Your task to perform on an android device: add a contact in the contacts app Image 0: 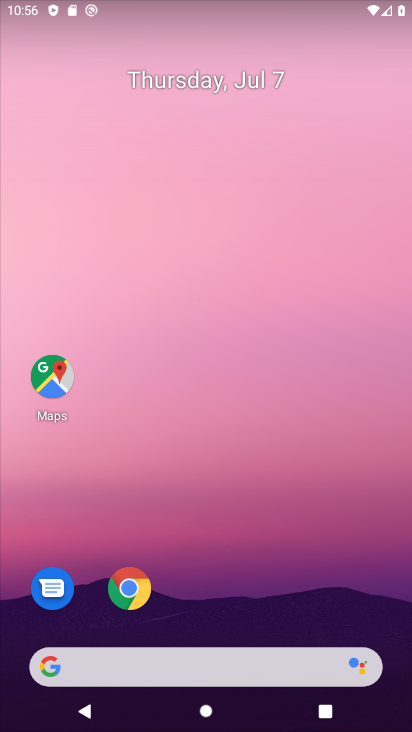
Step 0: drag from (133, 135) to (124, 97)
Your task to perform on an android device: add a contact in the contacts app Image 1: 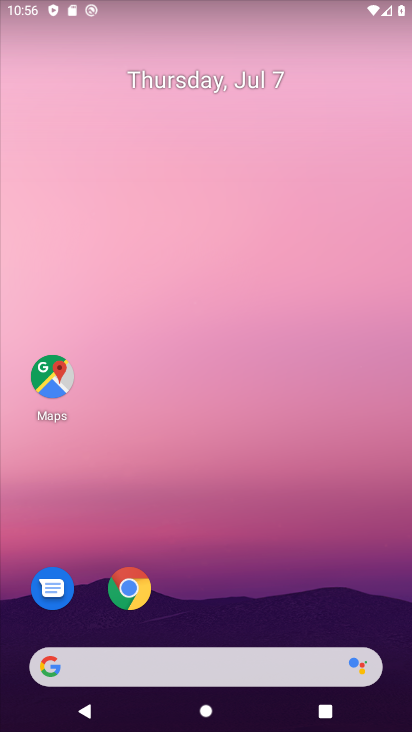
Step 1: drag from (232, 550) to (177, 229)
Your task to perform on an android device: add a contact in the contacts app Image 2: 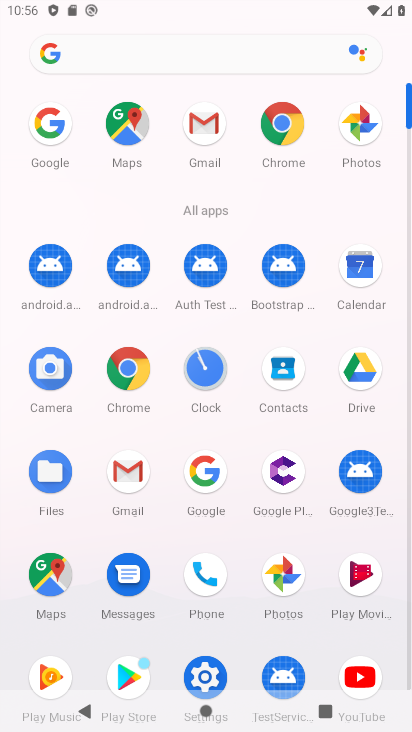
Step 2: click (280, 368)
Your task to perform on an android device: add a contact in the contacts app Image 3: 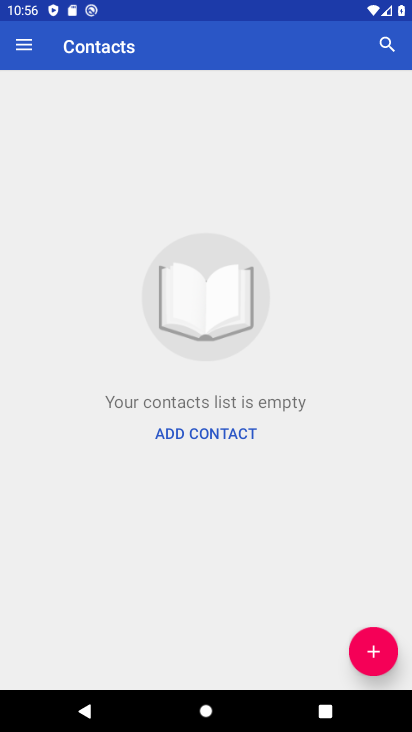
Step 3: click (374, 649)
Your task to perform on an android device: add a contact in the contacts app Image 4: 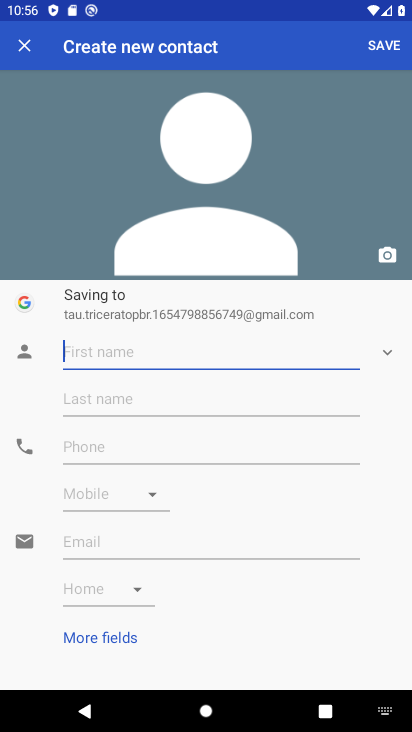
Step 4: type "asasa"
Your task to perform on an android device: add a contact in the contacts app Image 5: 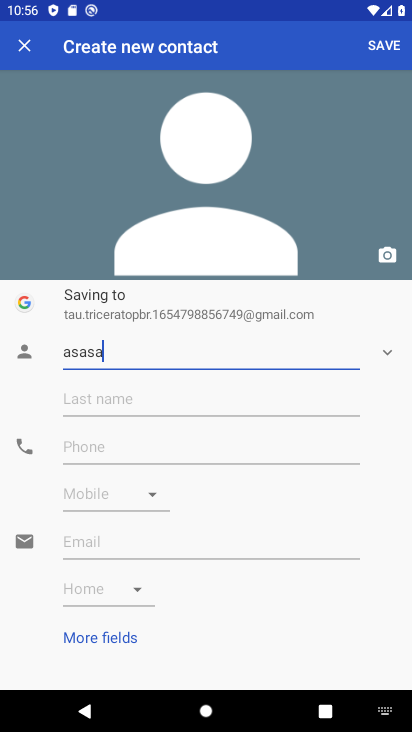
Step 5: click (151, 450)
Your task to perform on an android device: add a contact in the contacts app Image 6: 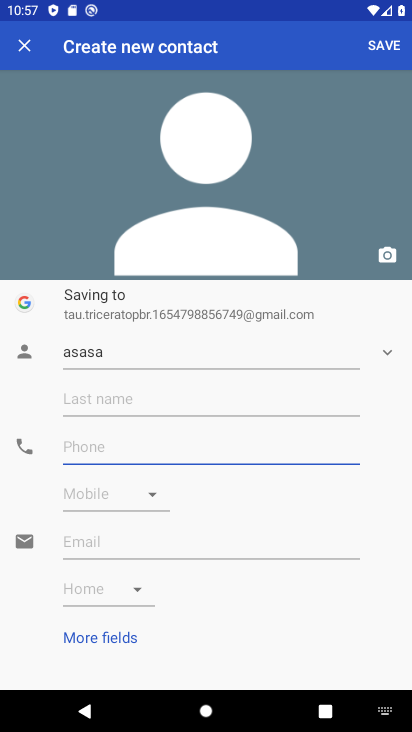
Step 6: type "98765678"
Your task to perform on an android device: add a contact in the contacts app Image 7: 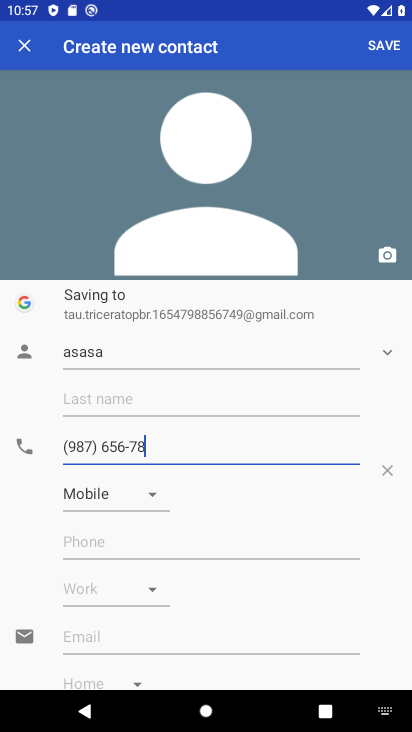
Step 7: click (387, 45)
Your task to perform on an android device: add a contact in the contacts app Image 8: 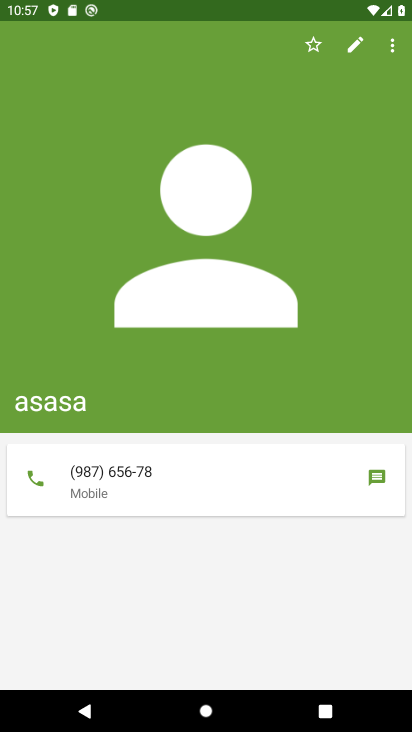
Step 8: task complete